Your task to perform on an android device: manage bookmarks in the chrome app Image 0: 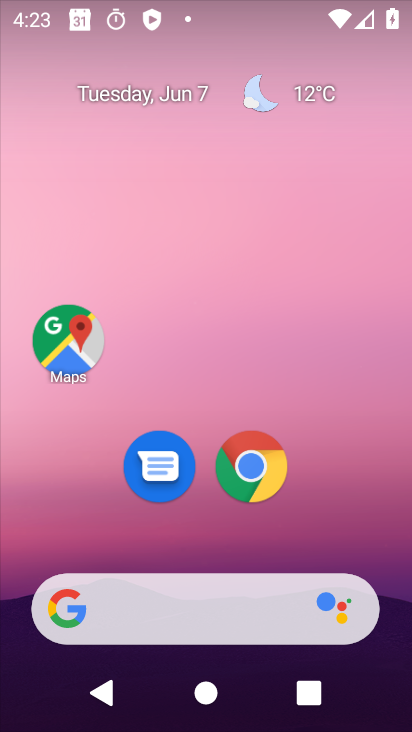
Step 0: click (271, 481)
Your task to perform on an android device: manage bookmarks in the chrome app Image 1: 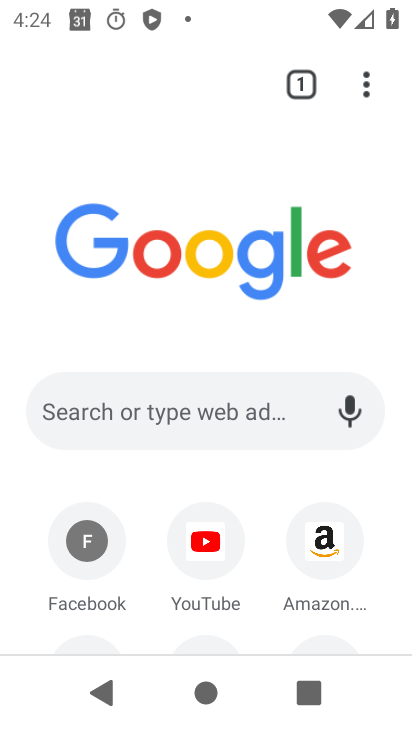
Step 1: click (375, 94)
Your task to perform on an android device: manage bookmarks in the chrome app Image 2: 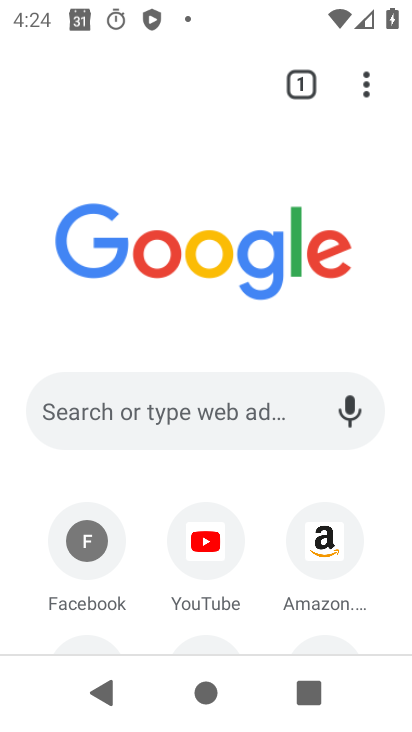
Step 2: click (375, 94)
Your task to perform on an android device: manage bookmarks in the chrome app Image 3: 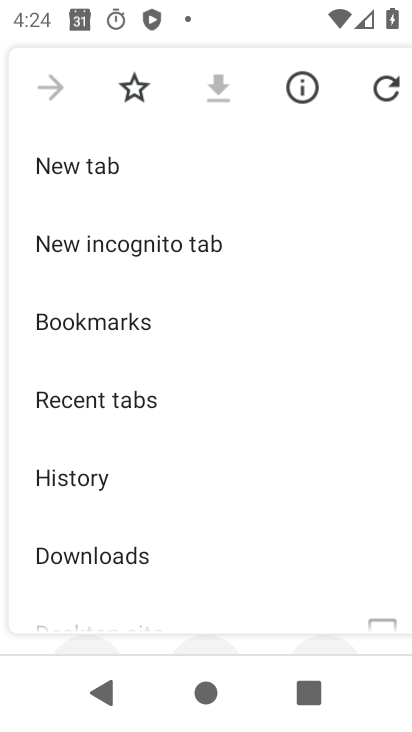
Step 3: click (147, 321)
Your task to perform on an android device: manage bookmarks in the chrome app Image 4: 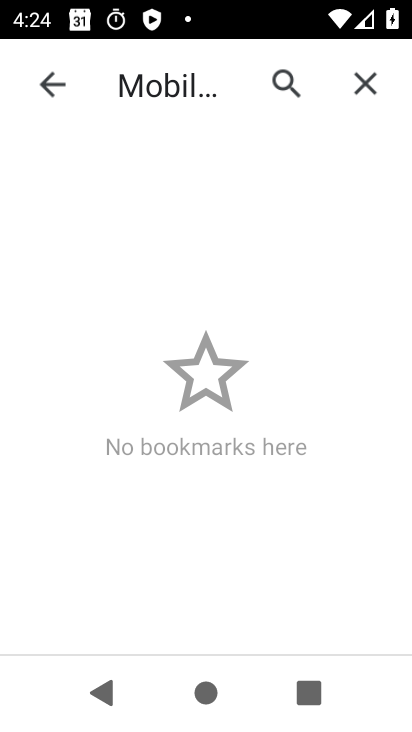
Step 4: task complete